Your task to perform on an android device: Search for sushi restaurants on Maps Image 0: 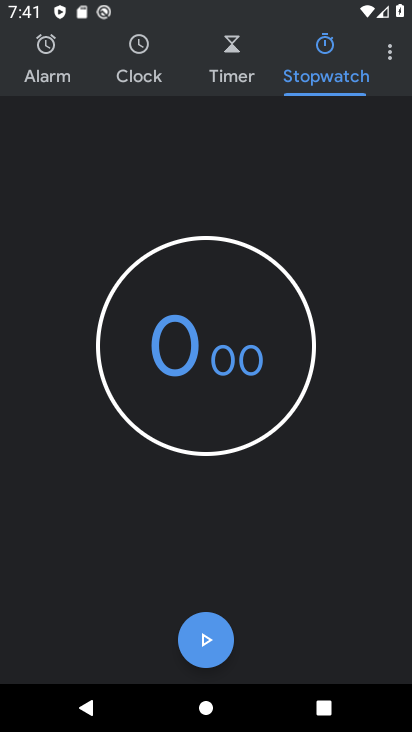
Step 0: press home button
Your task to perform on an android device: Search for sushi restaurants on Maps Image 1: 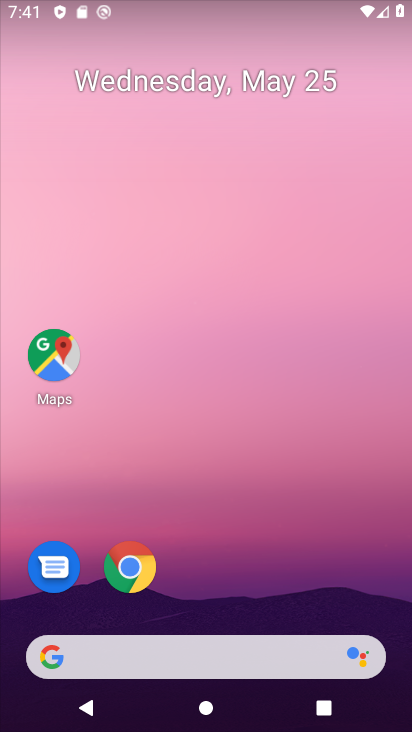
Step 1: click (57, 403)
Your task to perform on an android device: Search for sushi restaurants on Maps Image 2: 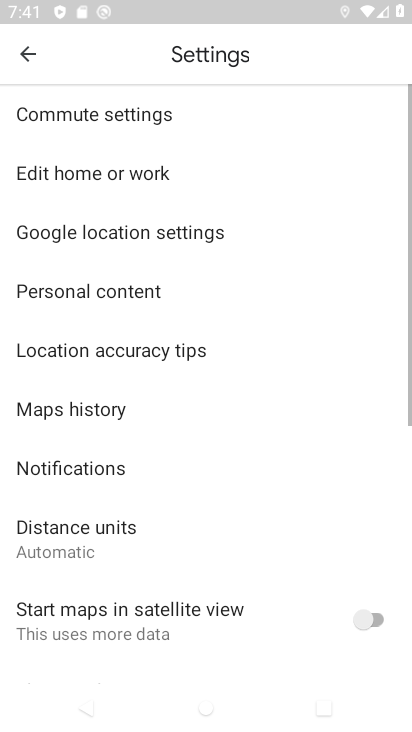
Step 2: click (18, 57)
Your task to perform on an android device: Search for sushi restaurants on Maps Image 3: 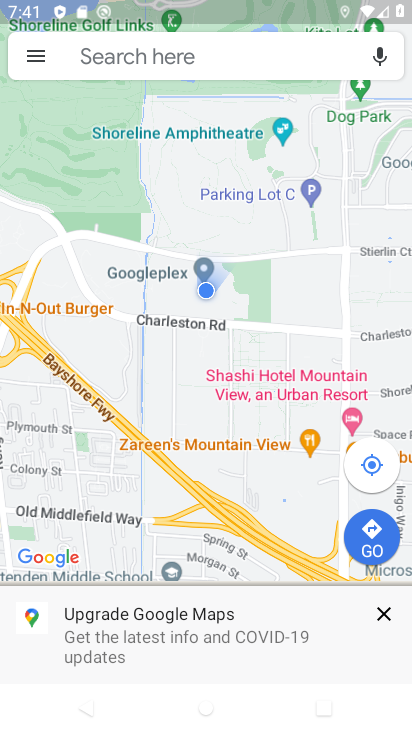
Step 3: click (135, 54)
Your task to perform on an android device: Search for sushi restaurants on Maps Image 4: 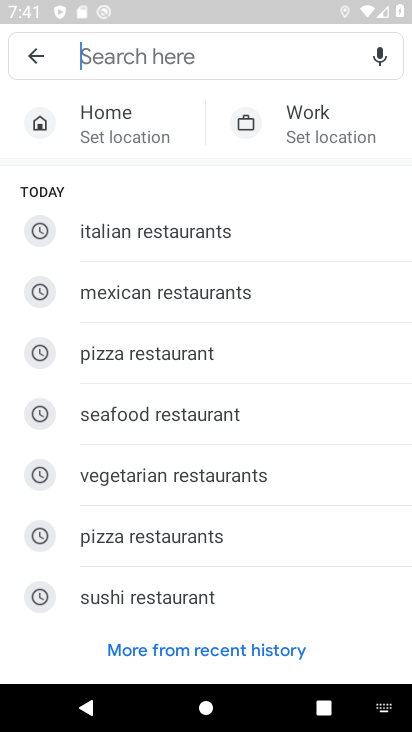
Step 4: click (148, 595)
Your task to perform on an android device: Search for sushi restaurants on Maps Image 5: 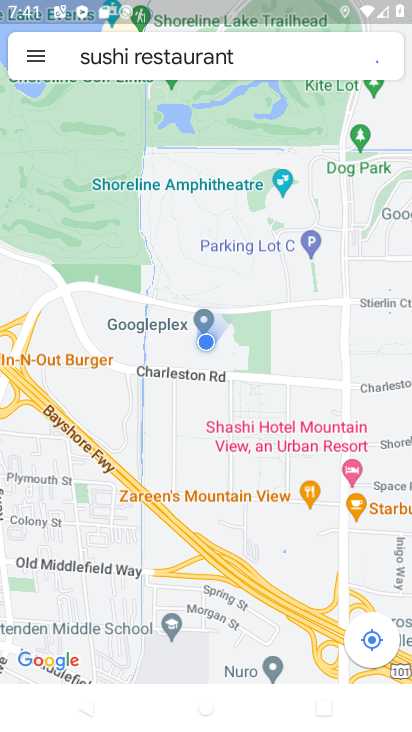
Step 5: task complete